Your task to perform on an android device: Go to CNN.com Image 0: 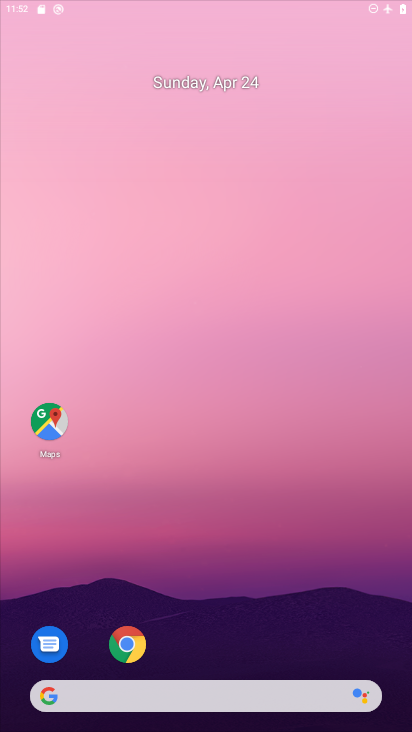
Step 0: click (353, 299)
Your task to perform on an android device: Go to CNN.com Image 1: 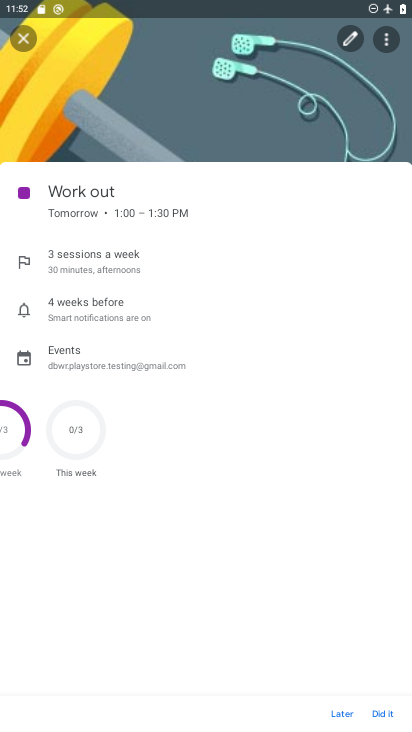
Step 1: press home button
Your task to perform on an android device: Go to CNN.com Image 2: 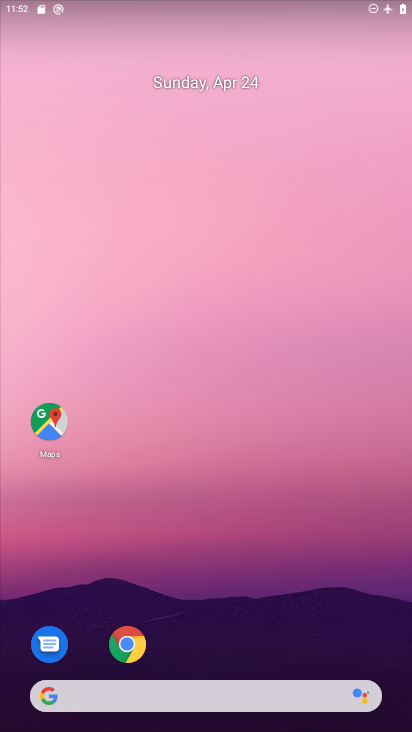
Step 2: click (132, 646)
Your task to perform on an android device: Go to CNN.com Image 3: 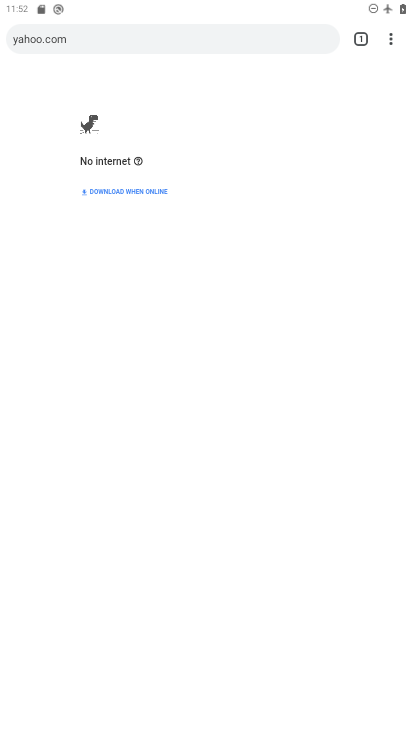
Step 3: click (149, 33)
Your task to perform on an android device: Go to CNN.com Image 4: 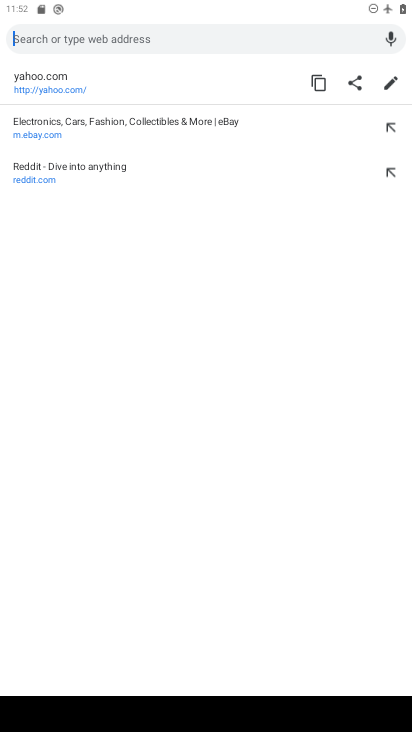
Step 4: type "CNN.com"
Your task to perform on an android device: Go to CNN.com Image 5: 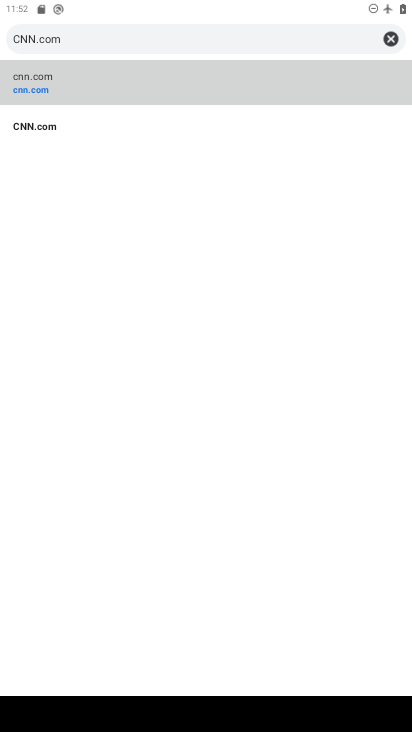
Step 5: click (70, 120)
Your task to perform on an android device: Go to CNN.com Image 6: 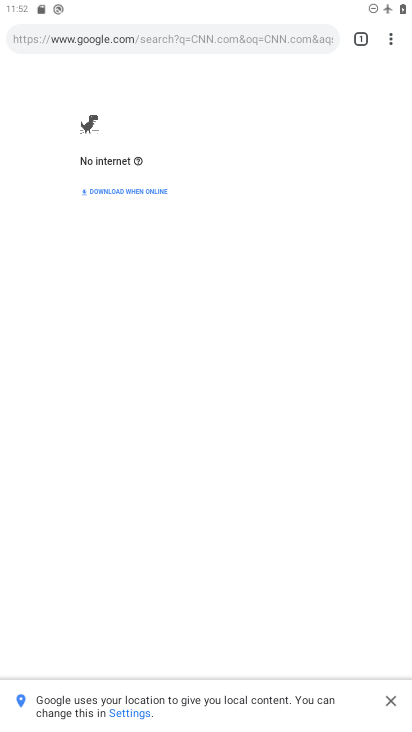
Step 6: task complete